Your task to perform on an android device: change your default location settings in chrome Image 0: 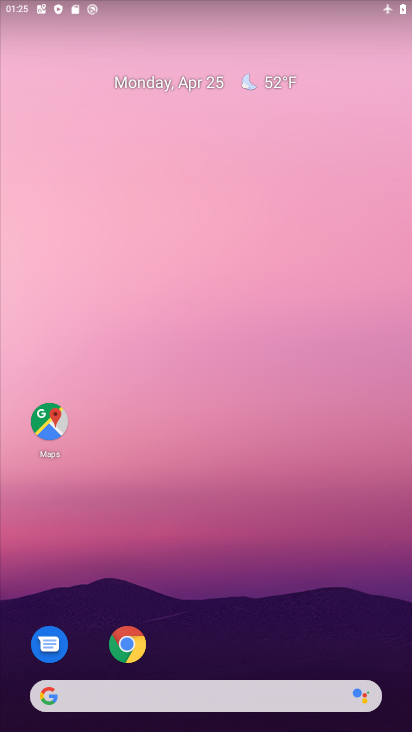
Step 0: click (140, 641)
Your task to perform on an android device: change your default location settings in chrome Image 1: 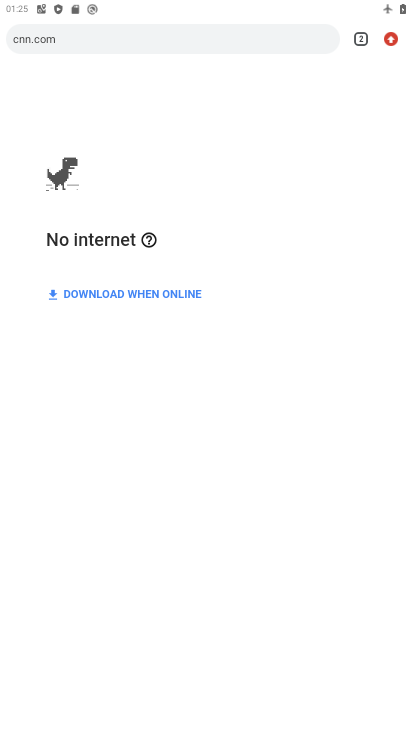
Step 1: click (390, 31)
Your task to perform on an android device: change your default location settings in chrome Image 2: 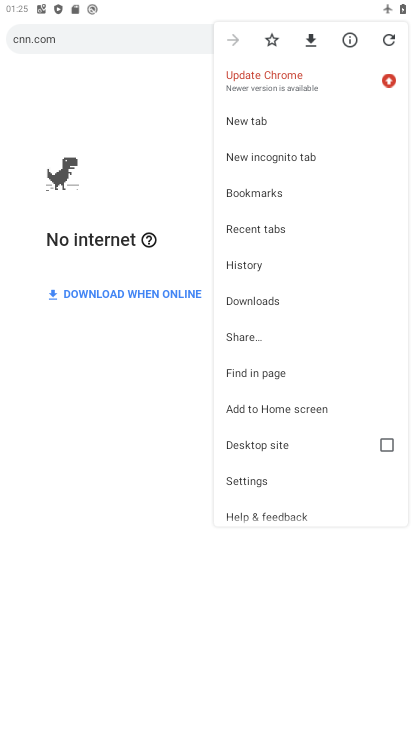
Step 2: click (260, 470)
Your task to perform on an android device: change your default location settings in chrome Image 3: 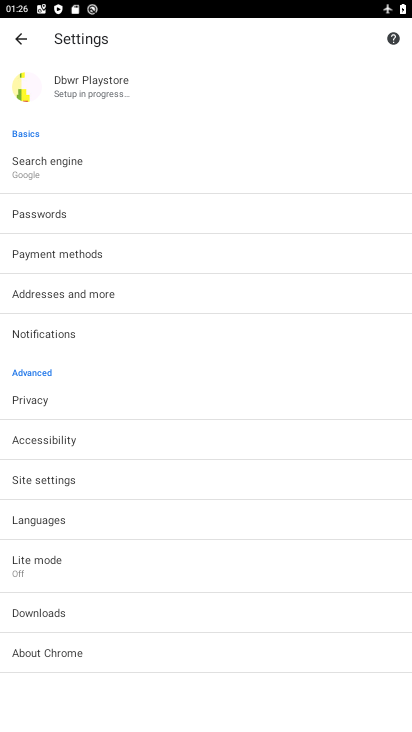
Step 3: task complete